Your task to perform on an android device: Open Wikipedia Image 0: 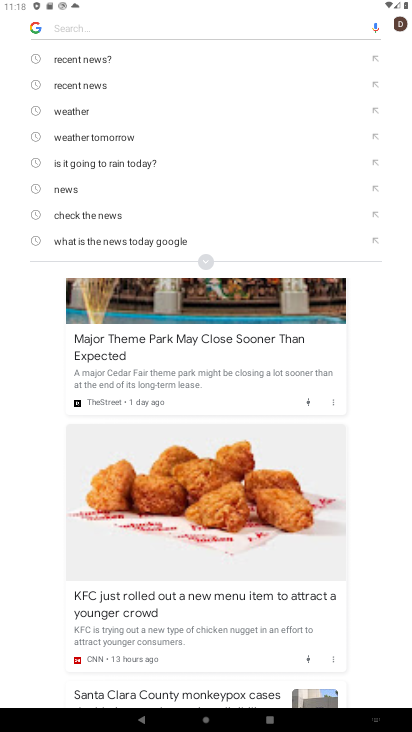
Step 0: press back button
Your task to perform on an android device: Open Wikipedia Image 1: 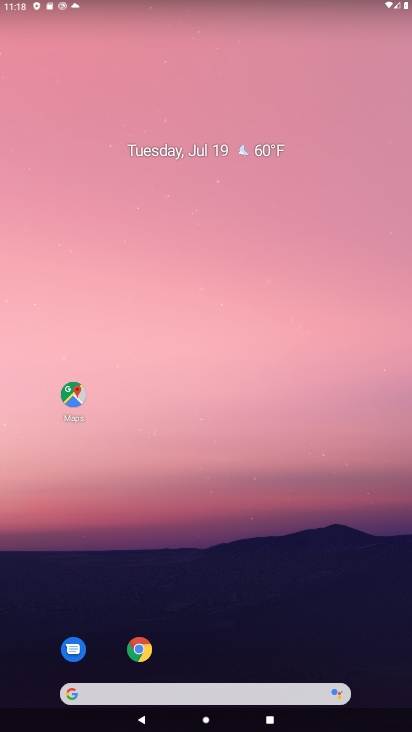
Step 1: click (146, 648)
Your task to perform on an android device: Open Wikipedia Image 2: 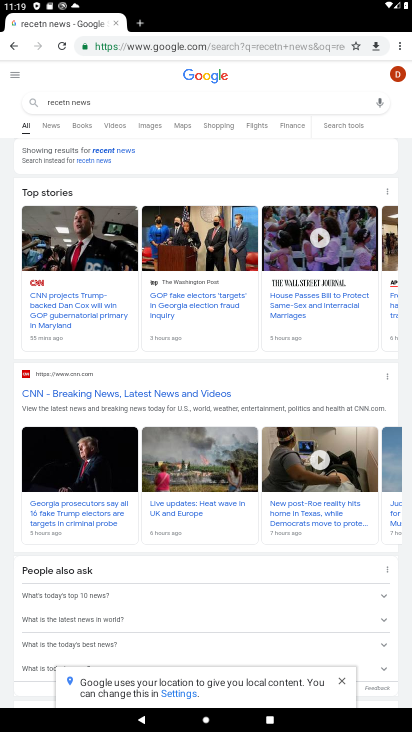
Step 2: click (178, 45)
Your task to perform on an android device: Open Wikipedia Image 3: 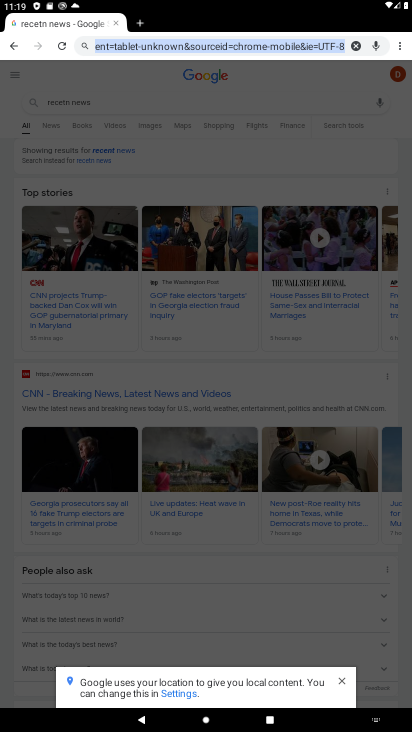
Step 3: type "wikipedia"
Your task to perform on an android device: Open Wikipedia Image 4: 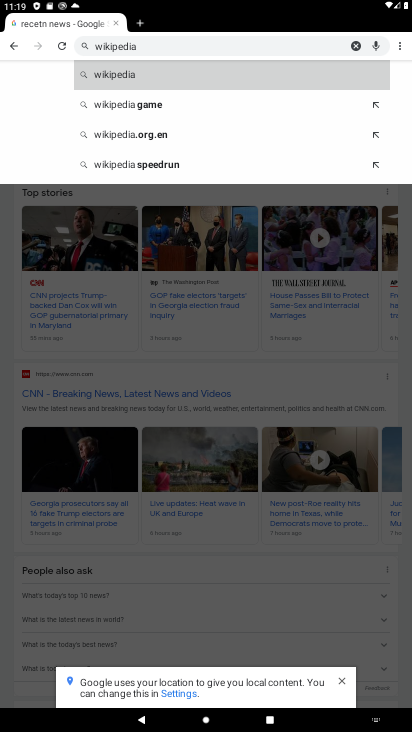
Step 4: click (145, 79)
Your task to perform on an android device: Open Wikipedia Image 5: 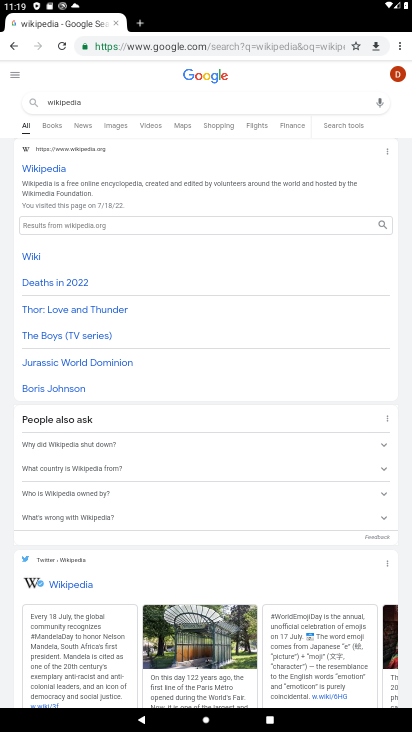
Step 5: click (49, 165)
Your task to perform on an android device: Open Wikipedia Image 6: 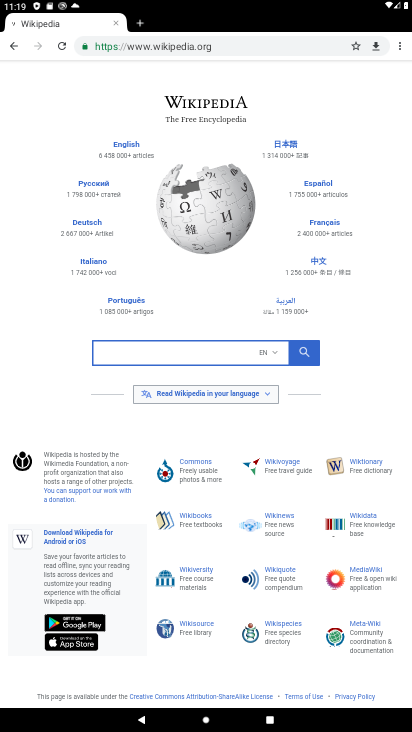
Step 6: task complete